Your task to perform on an android device: turn off smart reply in the gmail app Image 0: 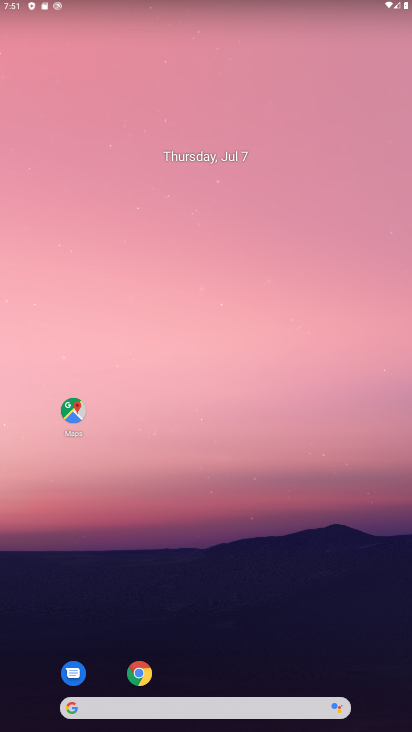
Step 0: drag from (209, 688) to (146, 38)
Your task to perform on an android device: turn off smart reply in the gmail app Image 1: 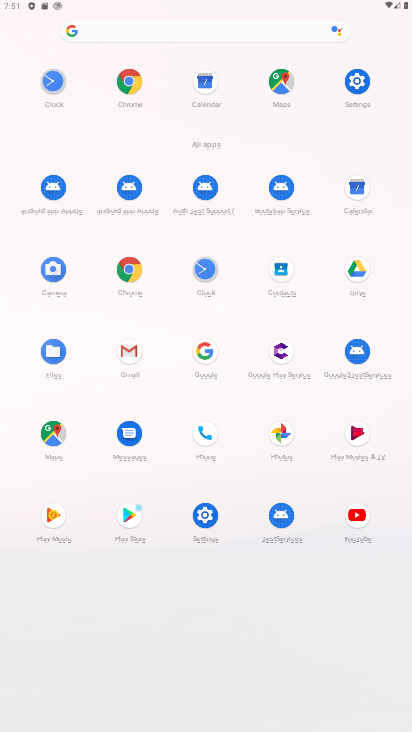
Step 1: click (133, 348)
Your task to perform on an android device: turn off smart reply in the gmail app Image 2: 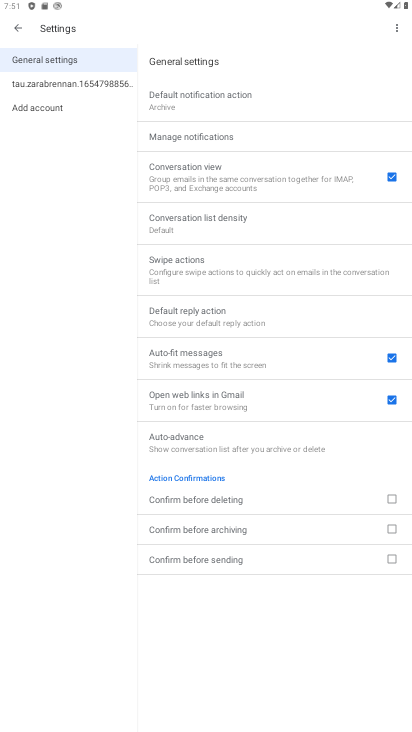
Step 2: click (22, 86)
Your task to perform on an android device: turn off smart reply in the gmail app Image 3: 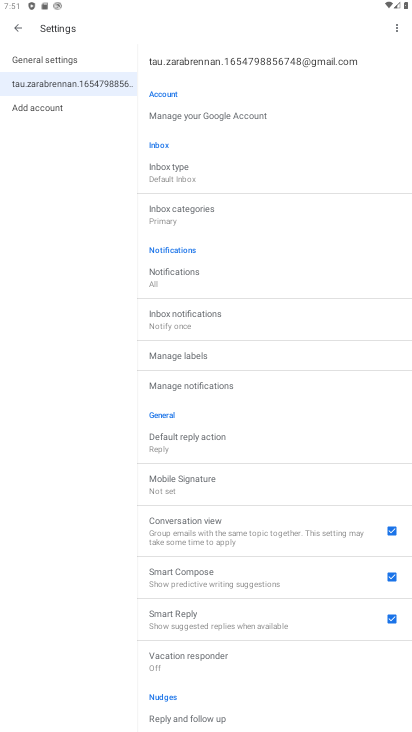
Step 3: click (249, 625)
Your task to perform on an android device: turn off smart reply in the gmail app Image 4: 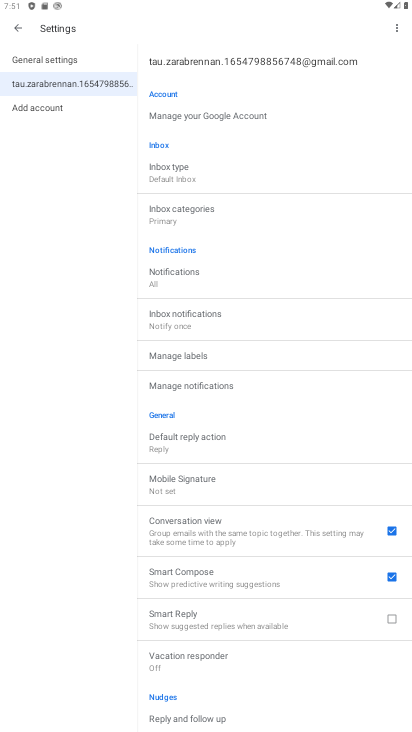
Step 4: task complete